Your task to perform on an android device: What's the weather going to be tomorrow? Image 0: 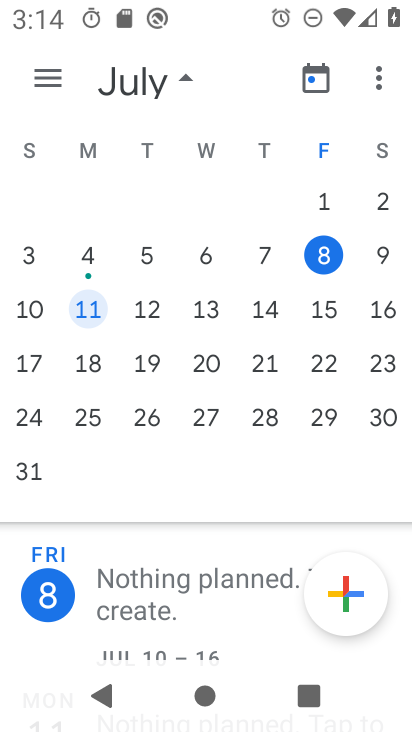
Step 0: press home button
Your task to perform on an android device: What's the weather going to be tomorrow? Image 1: 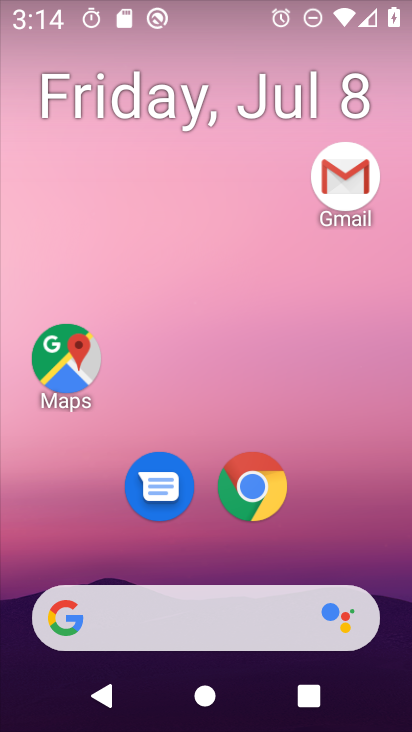
Step 1: drag from (338, 532) to (399, 128)
Your task to perform on an android device: What's the weather going to be tomorrow? Image 2: 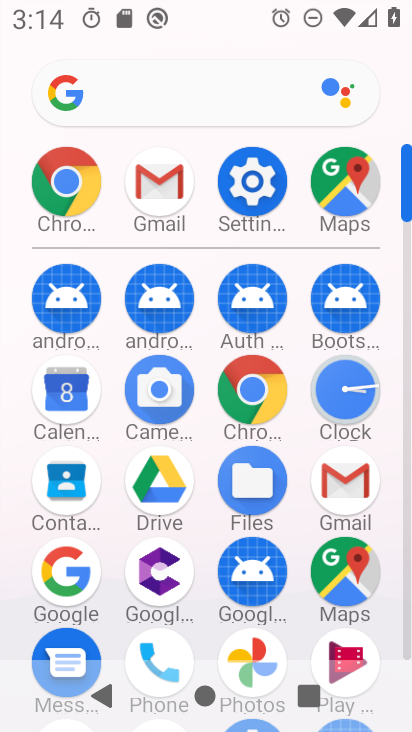
Step 2: click (194, 110)
Your task to perform on an android device: What's the weather going to be tomorrow? Image 3: 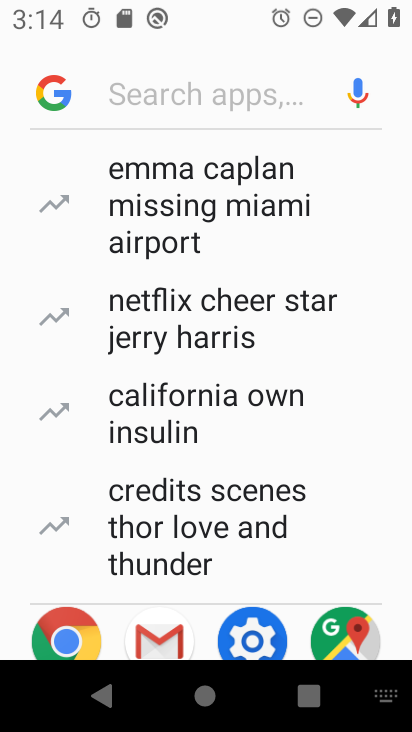
Step 3: type "weather"
Your task to perform on an android device: What's the weather going to be tomorrow? Image 4: 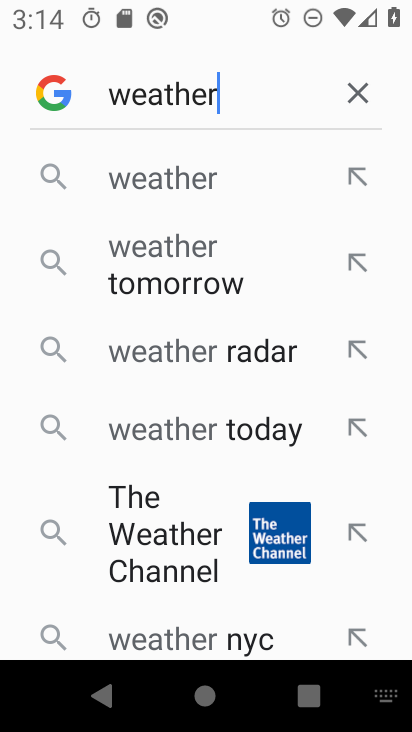
Step 4: click (203, 177)
Your task to perform on an android device: What's the weather going to be tomorrow? Image 5: 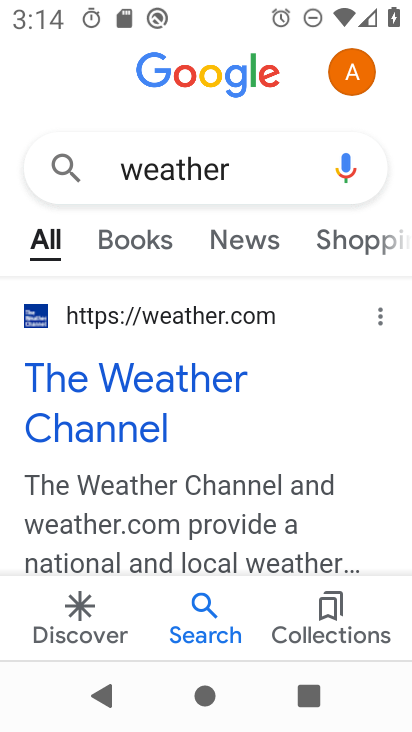
Step 5: task complete